Your task to perform on an android device: Google the capital of Canada Image 0: 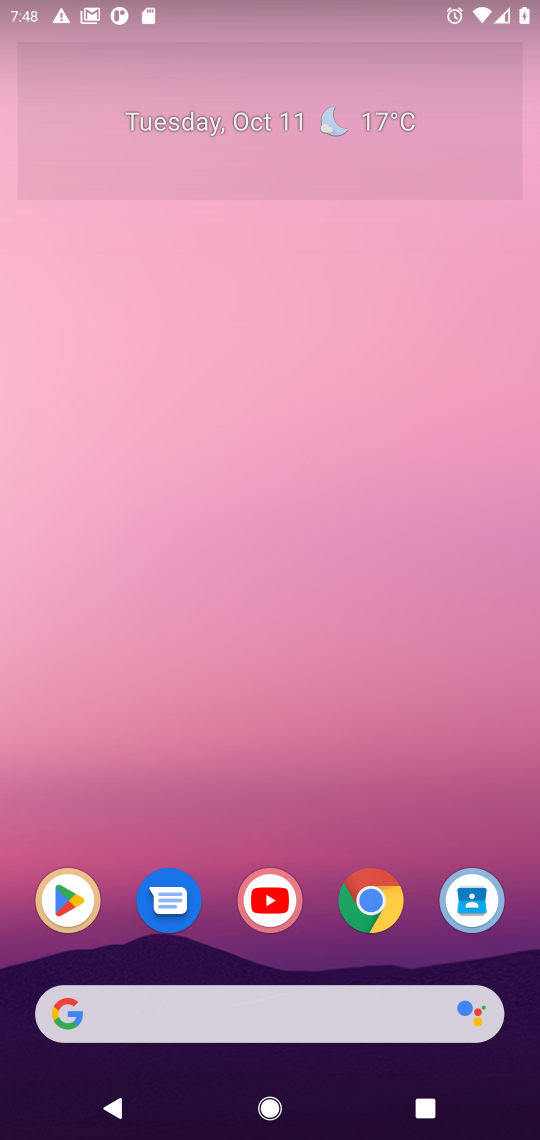
Step 0: click (373, 907)
Your task to perform on an android device: Google the capital of Canada Image 1: 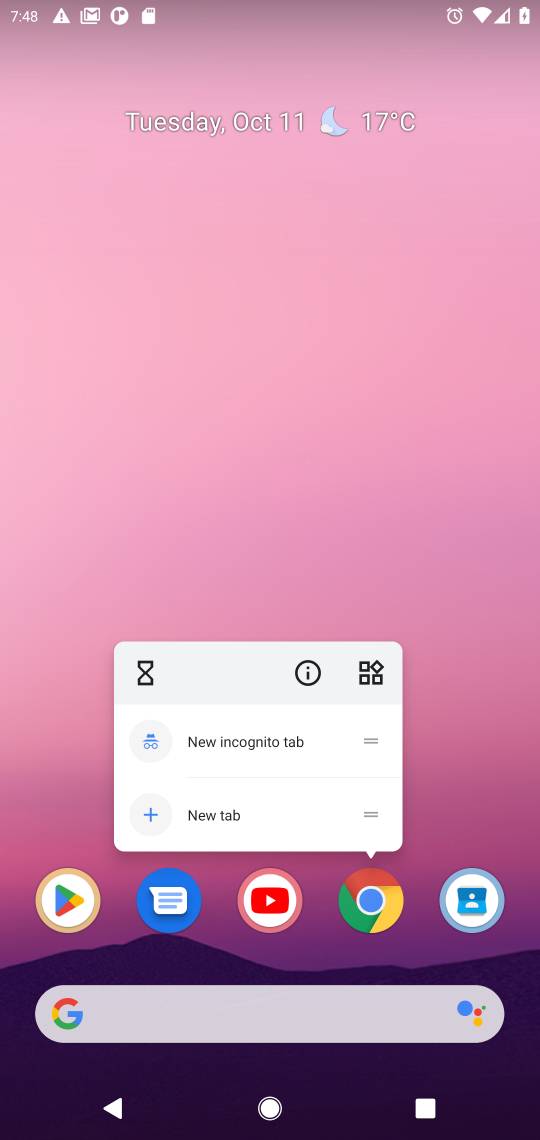
Step 1: click (373, 907)
Your task to perform on an android device: Google the capital of Canada Image 2: 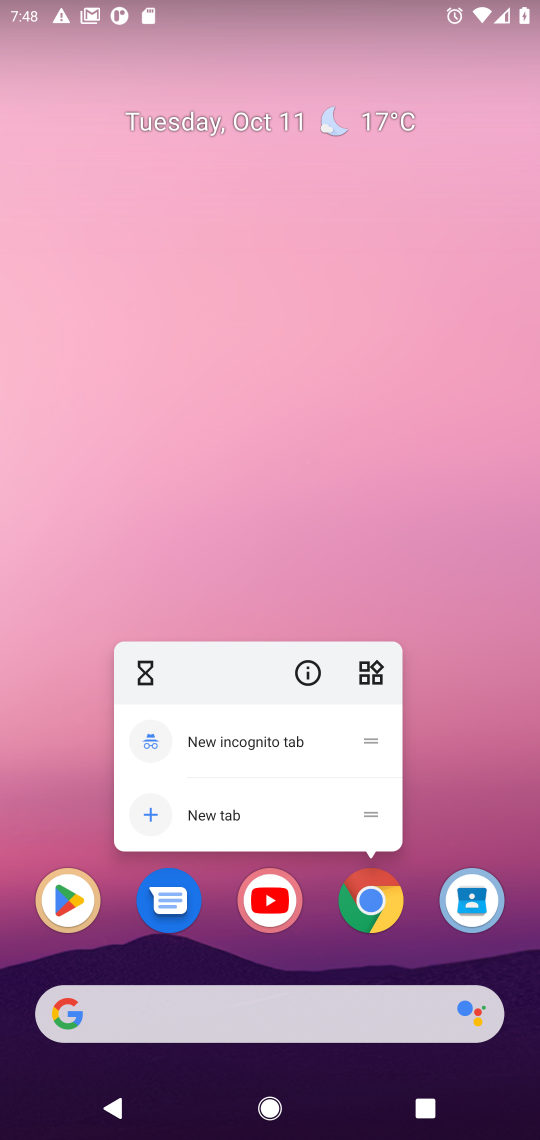
Step 2: click (373, 907)
Your task to perform on an android device: Google the capital of Canada Image 3: 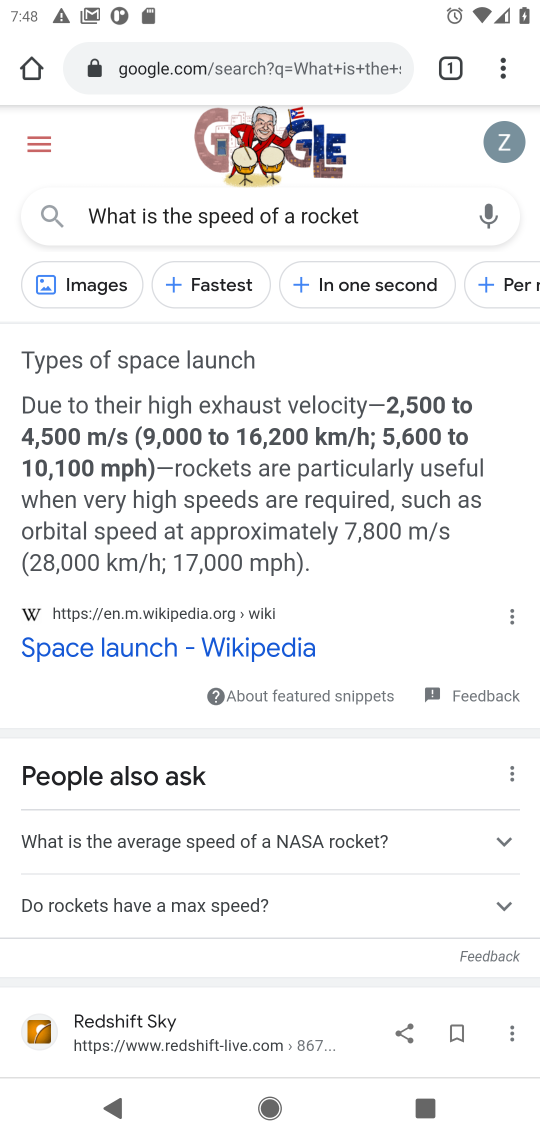
Step 3: click (326, 60)
Your task to perform on an android device: Google the capital of Canada Image 4: 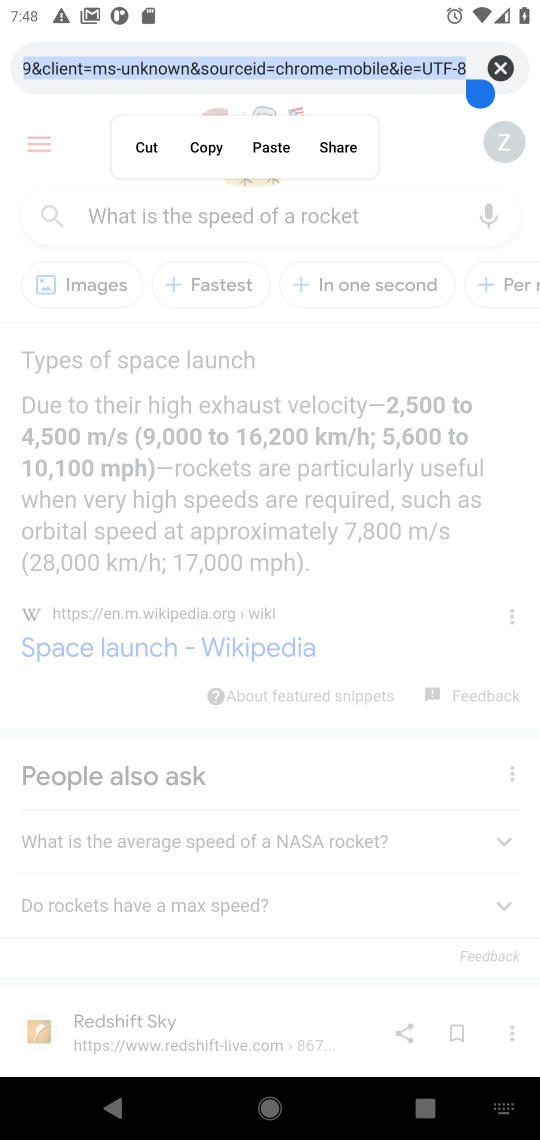
Step 4: click (497, 66)
Your task to perform on an android device: Google the capital of Canada Image 5: 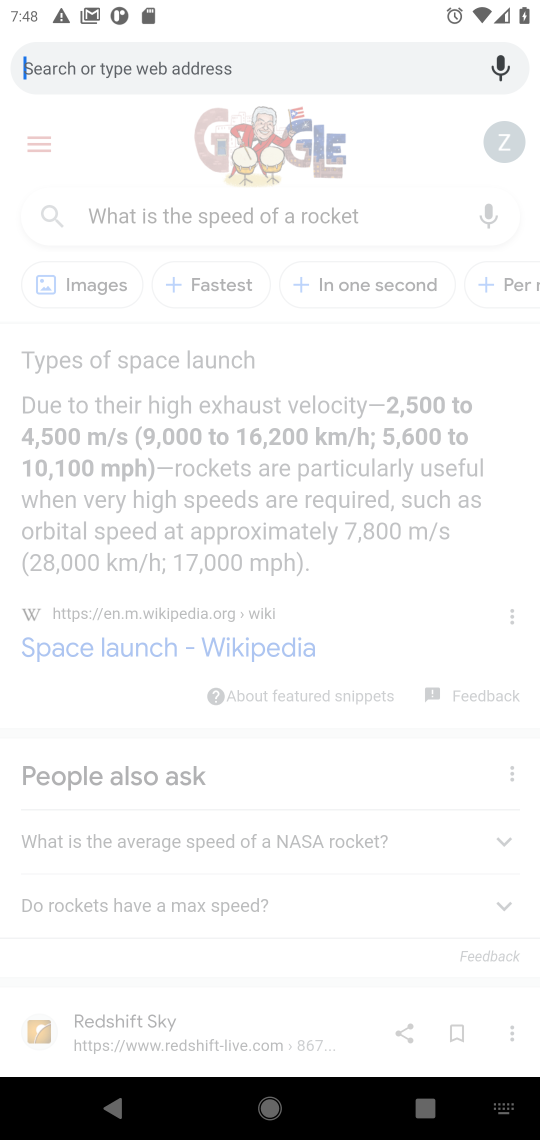
Step 5: type " capital of Canada"
Your task to perform on an android device: Google the capital of Canada Image 6: 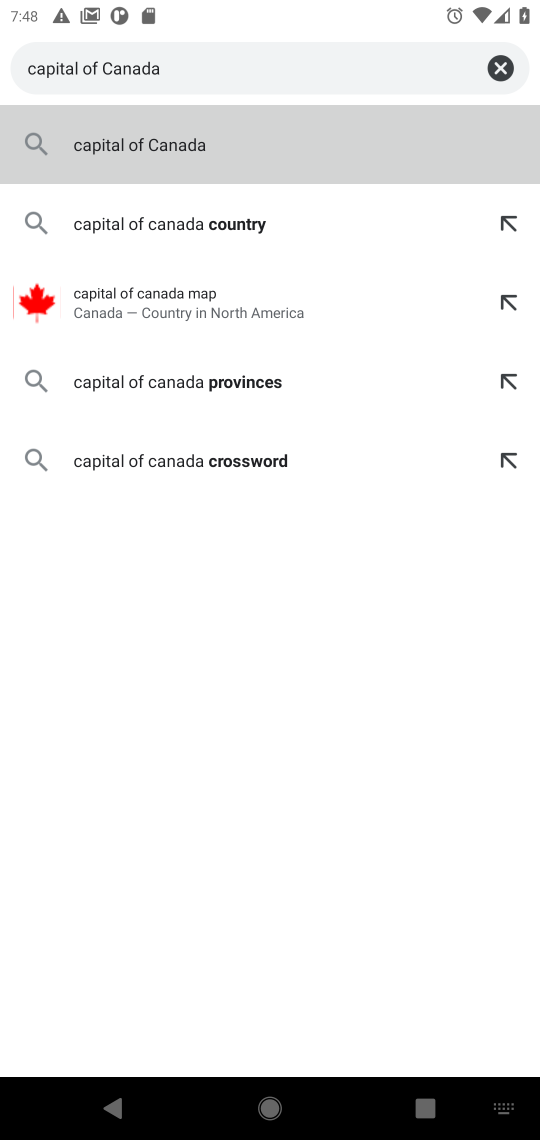
Step 6: press enter
Your task to perform on an android device: Google the capital of Canada Image 7: 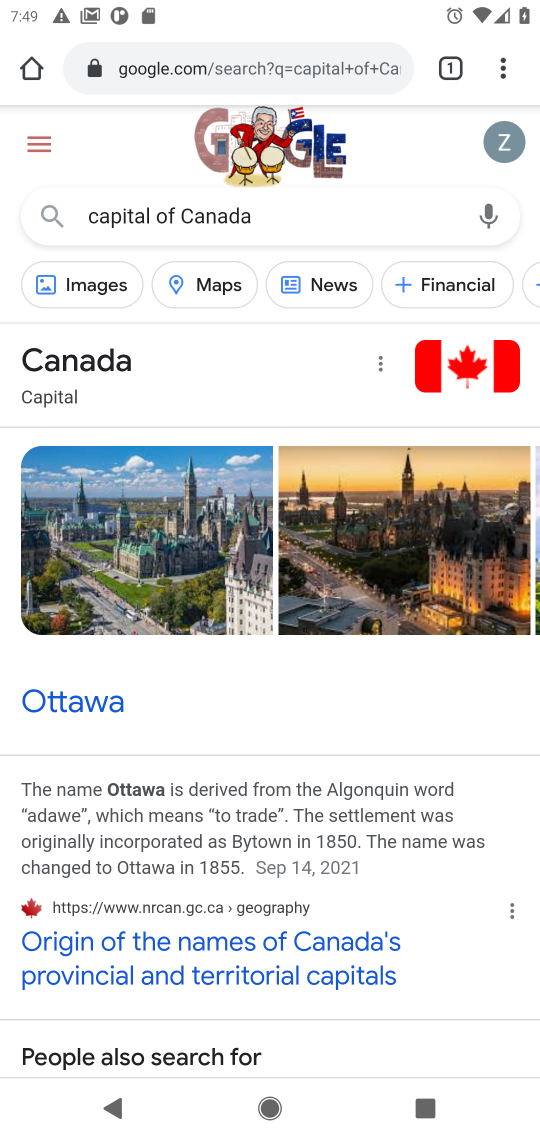
Step 7: task complete